Your task to perform on an android device: What's on my calendar today? Image 0: 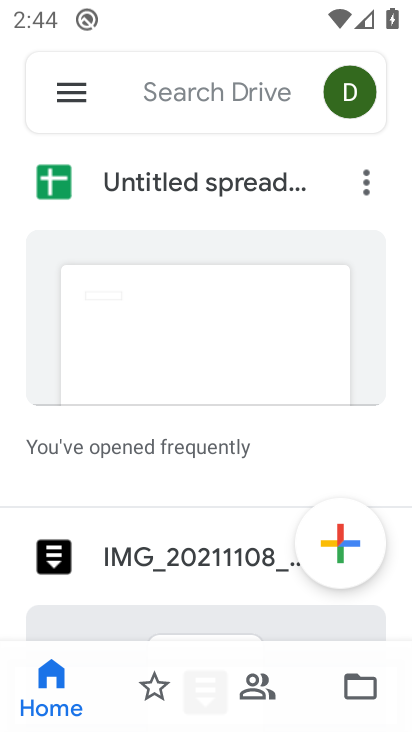
Step 0: press home button
Your task to perform on an android device: What's on my calendar today? Image 1: 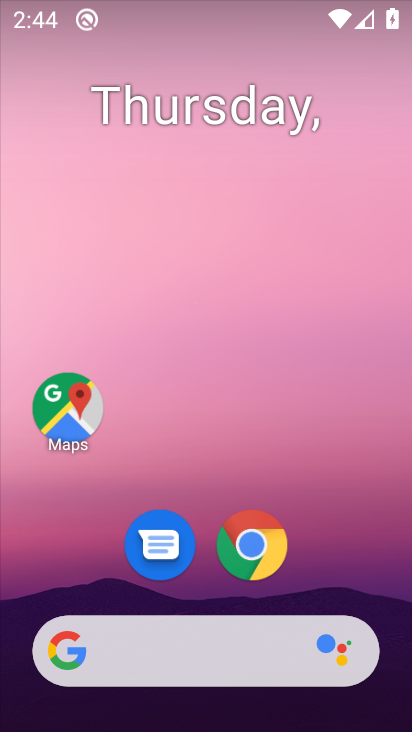
Step 1: drag from (193, 617) to (240, 35)
Your task to perform on an android device: What's on my calendar today? Image 2: 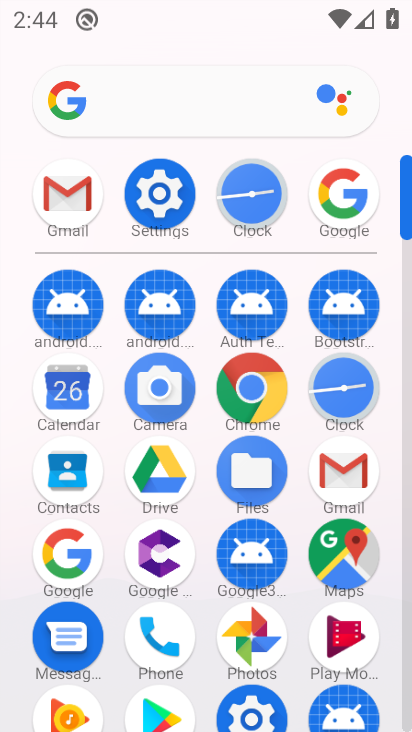
Step 2: click (62, 379)
Your task to perform on an android device: What's on my calendar today? Image 3: 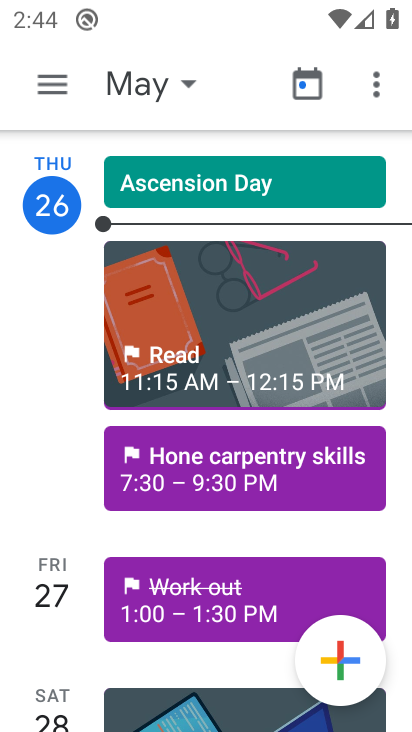
Step 3: click (215, 189)
Your task to perform on an android device: What's on my calendar today? Image 4: 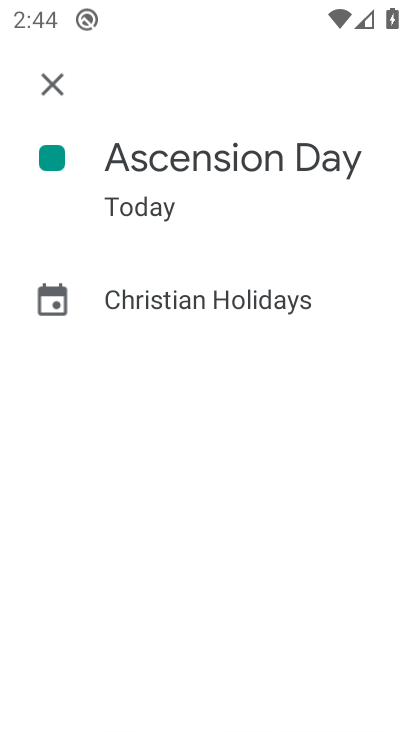
Step 4: task complete